Your task to perform on an android device: set the stopwatch Image 0: 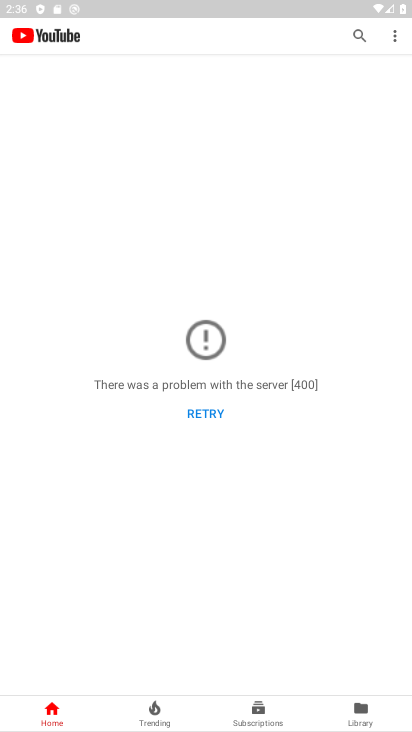
Step 0: press home button
Your task to perform on an android device: set the stopwatch Image 1: 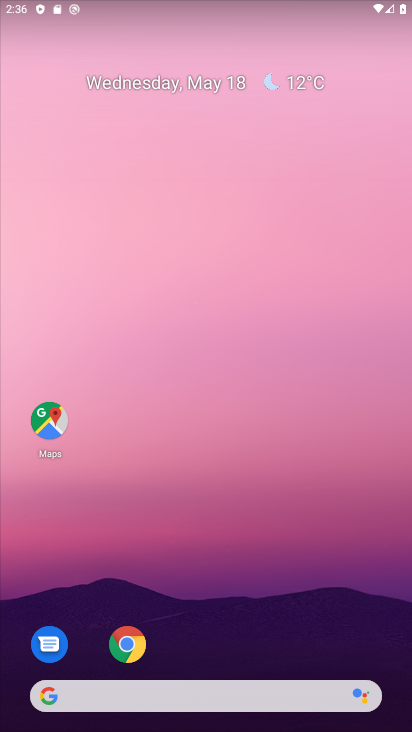
Step 1: drag from (378, 604) to (364, 182)
Your task to perform on an android device: set the stopwatch Image 2: 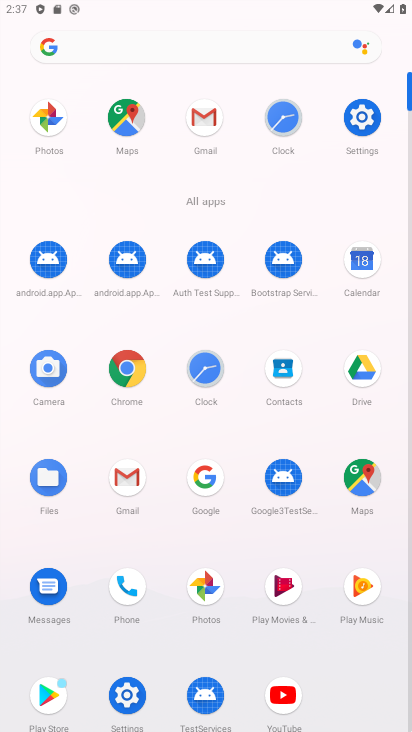
Step 2: click (188, 373)
Your task to perform on an android device: set the stopwatch Image 3: 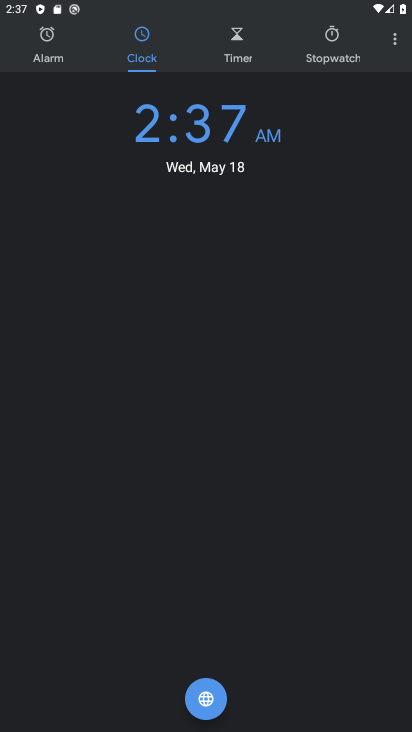
Step 3: click (320, 58)
Your task to perform on an android device: set the stopwatch Image 4: 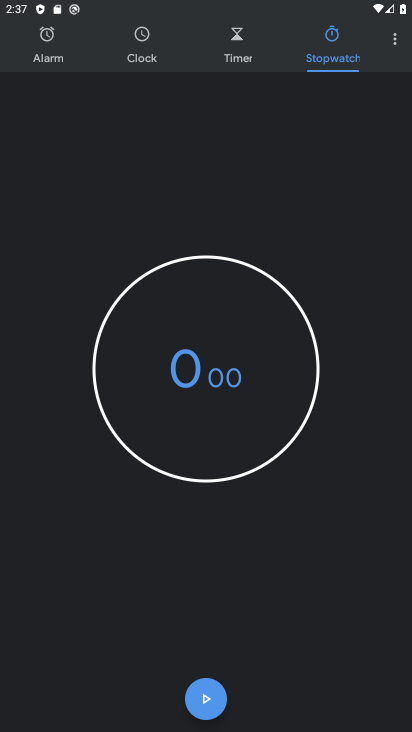
Step 4: click (217, 698)
Your task to perform on an android device: set the stopwatch Image 5: 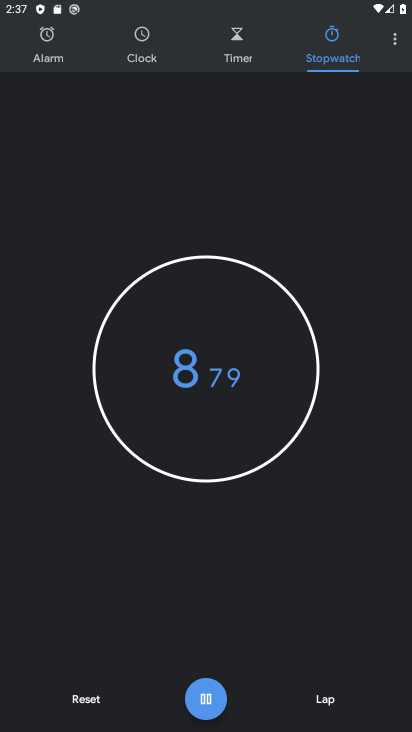
Step 5: task complete